Your task to perform on an android device: empty trash in the gmail app Image 0: 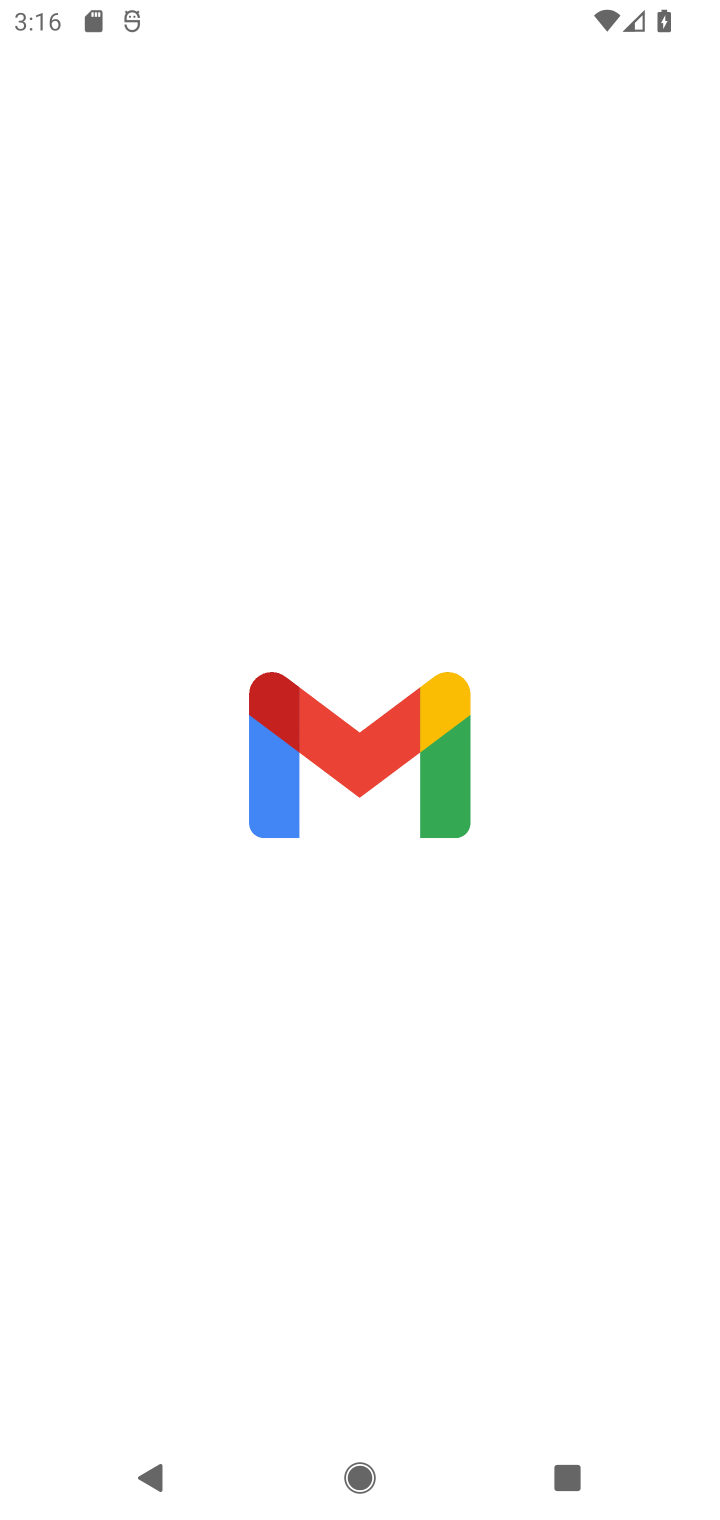
Step 0: press home button
Your task to perform on an android device: empty trash in the gmail app Image 1: 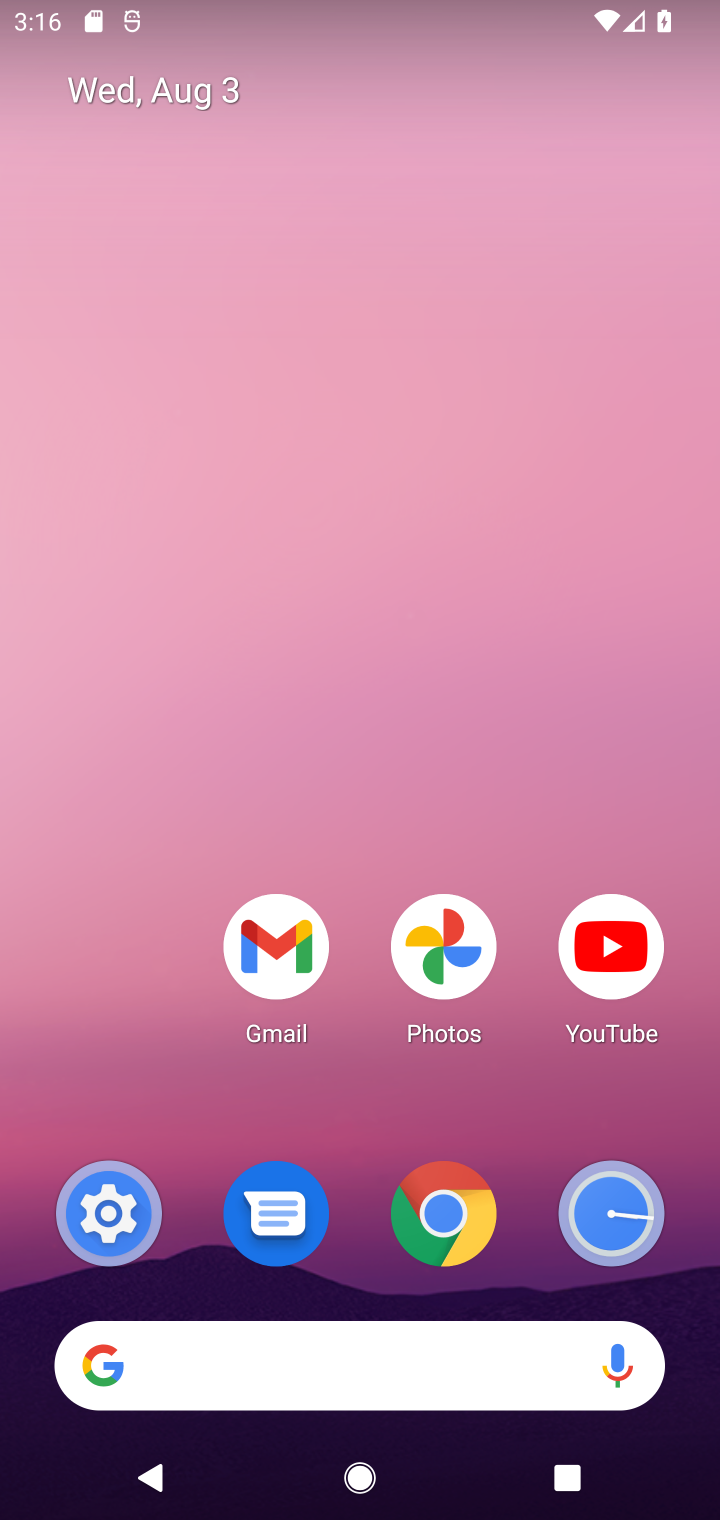
Step 1: click (256, 939)
Your task to perform on an android device: empty trash in the gmail app Image 2: 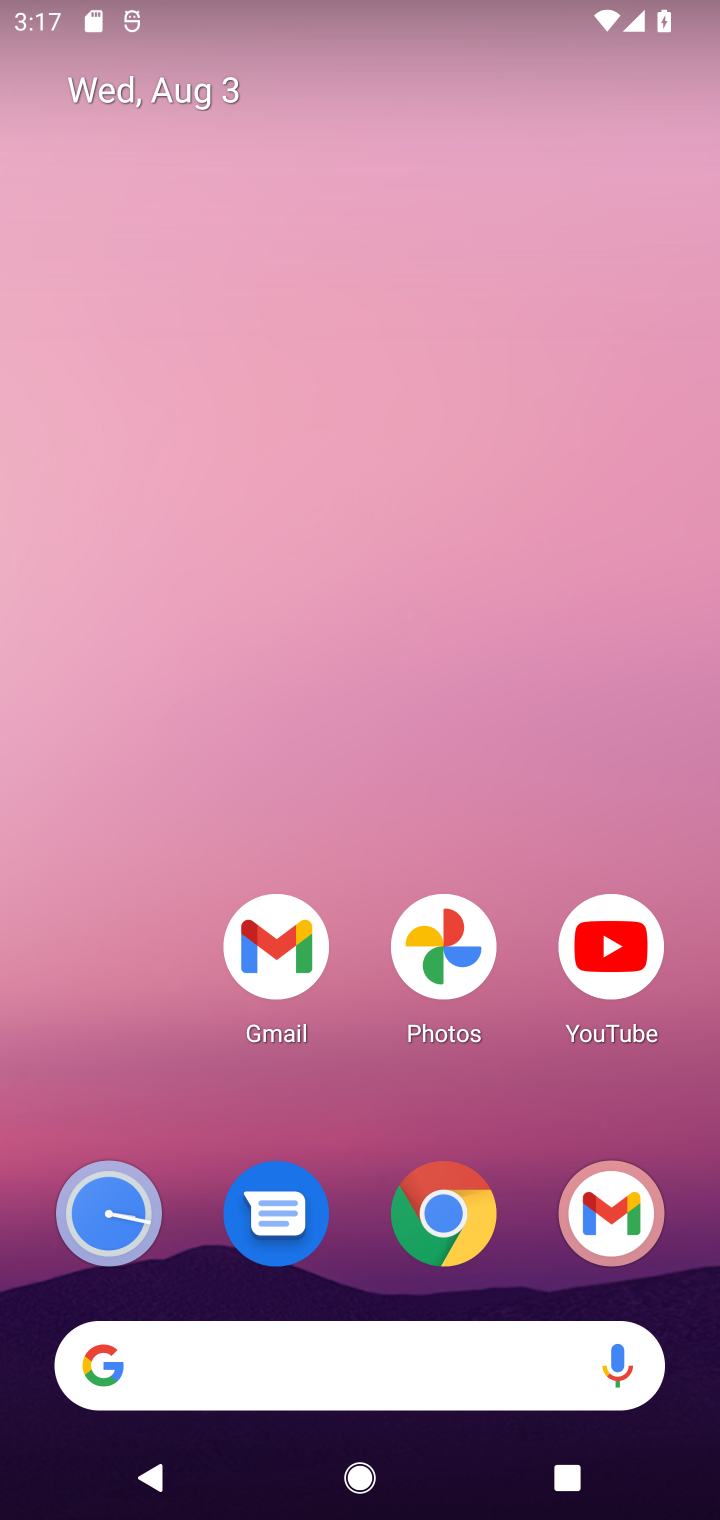
Step 2: click (273, 960)
Your task to perform on an android device: empty trash in the gmail app Image 3: 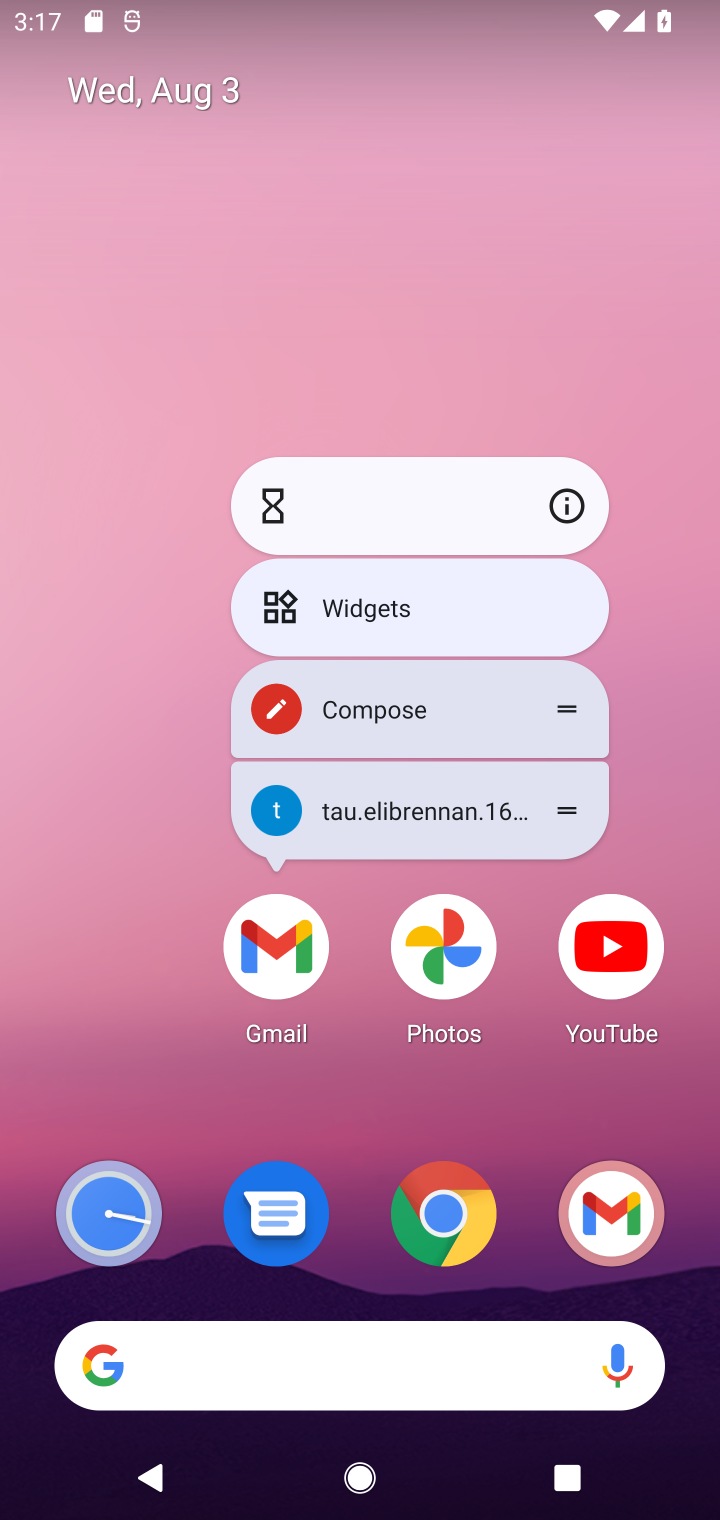
Step 3: click (275, 972)
Your task to perform on an android device: empty trash in the gmail app Image 4: 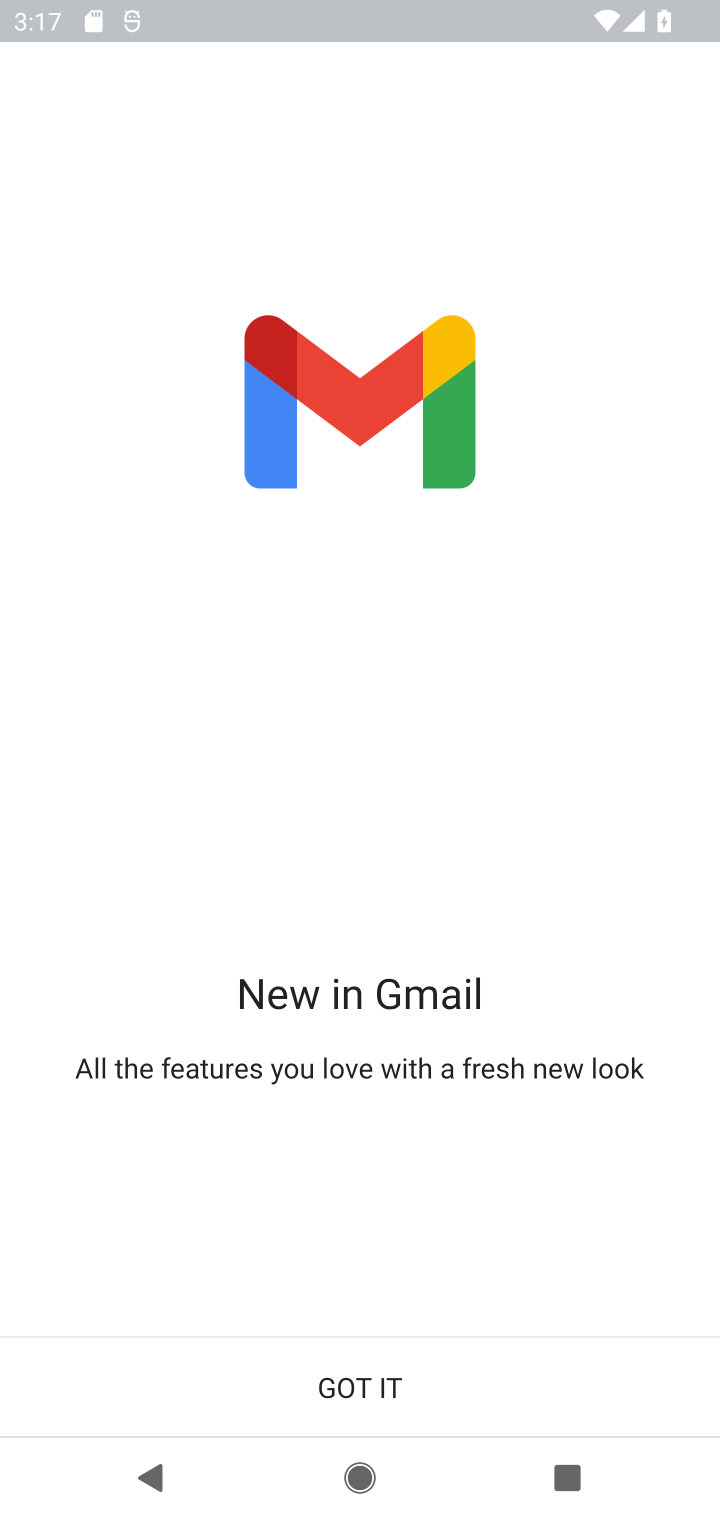
Step 4: click (423, 1378)
Your task to perform on an android device: empty trash in the gmail app Image 5: 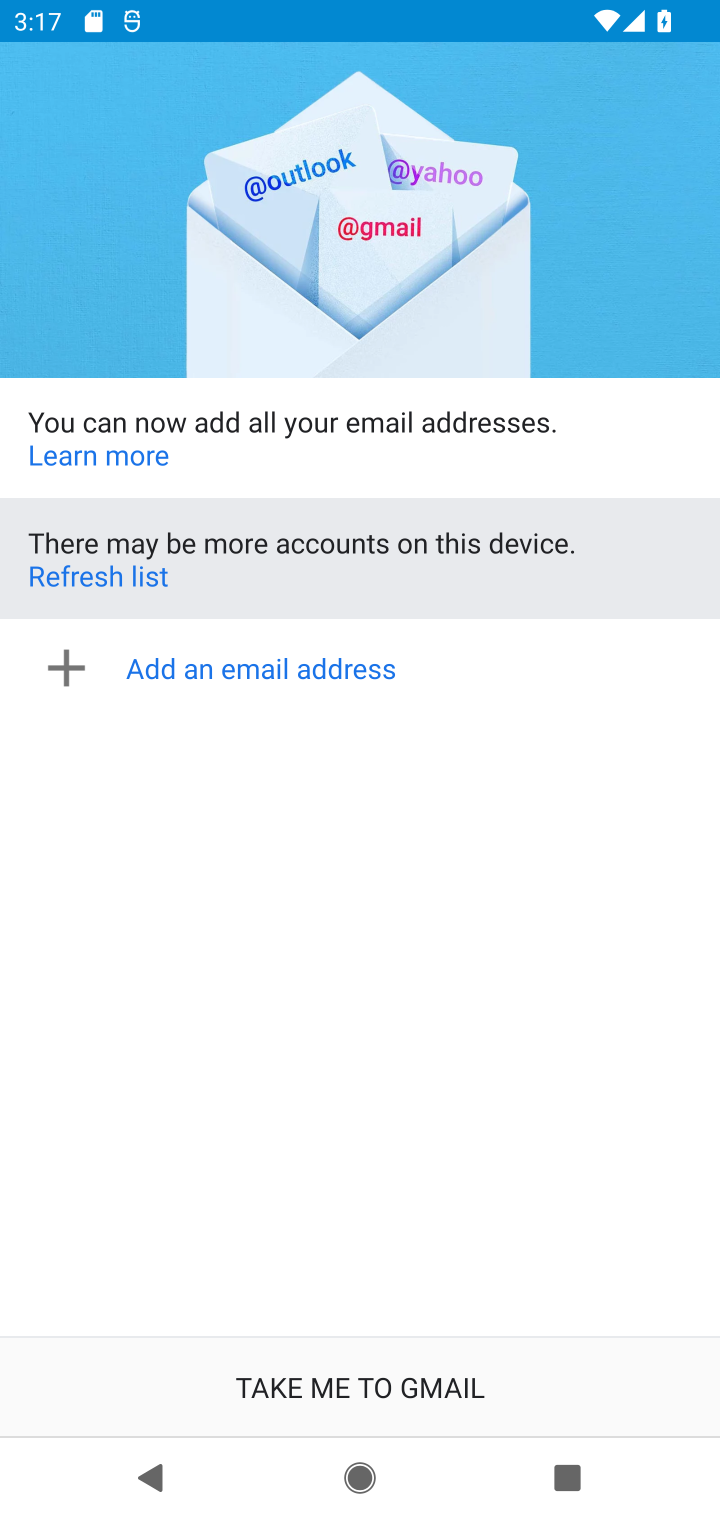
Step 5: click (406, 1391)
Your task to perform on an android device: empty trash in the gmail app Image 6: 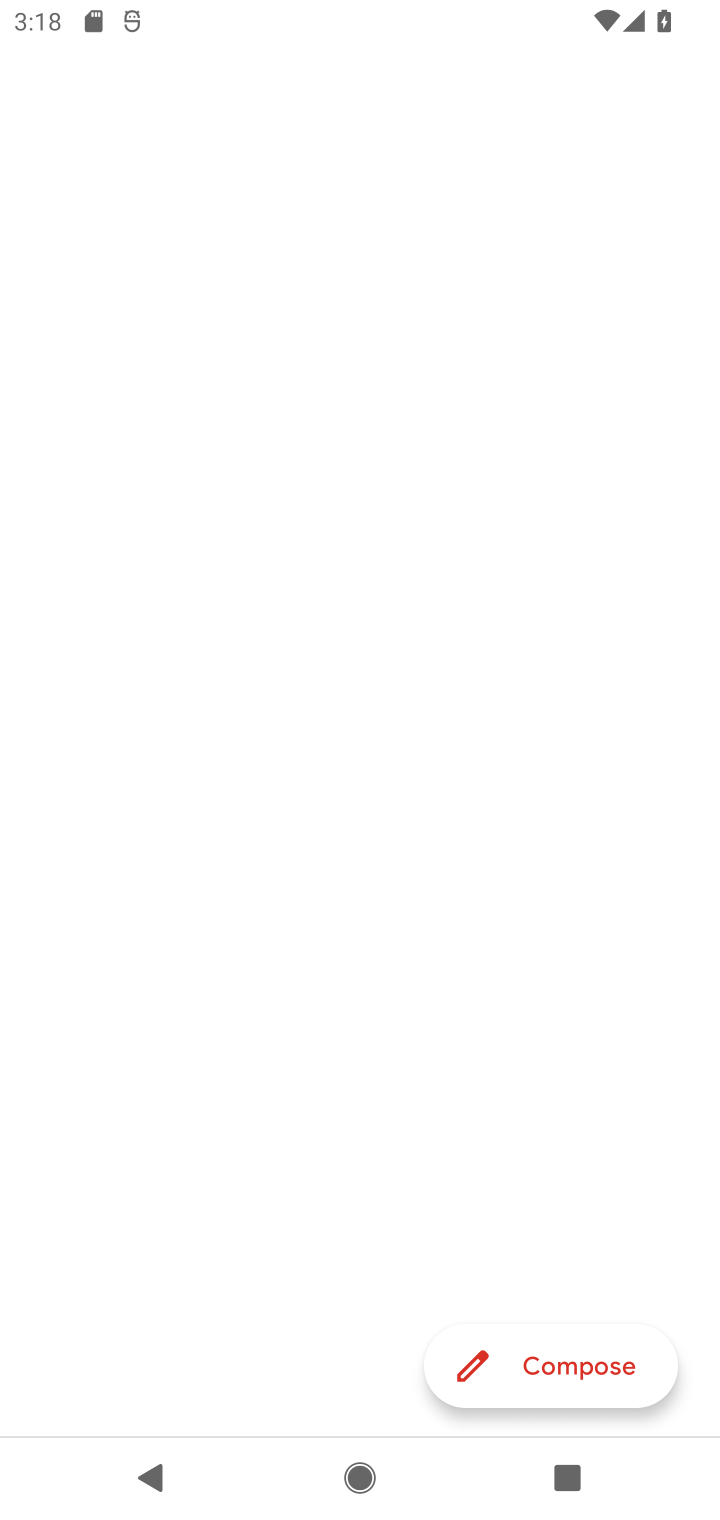
Step 6: click (318, 313)
Your task to perform on an android device: empty trash in the gmail app Image 7: 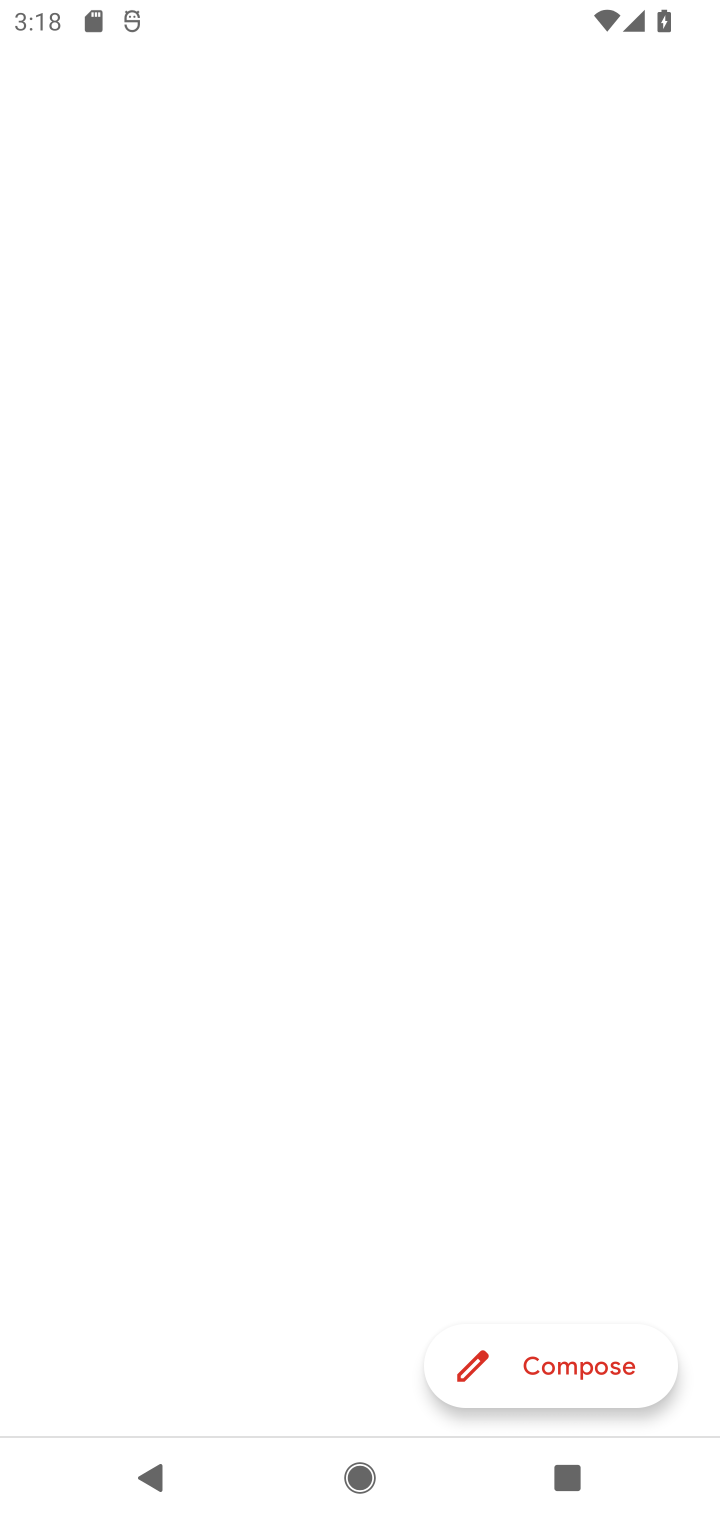
Step 7: task complete